Your task to perform on an android device: Open battery settings Image 0: 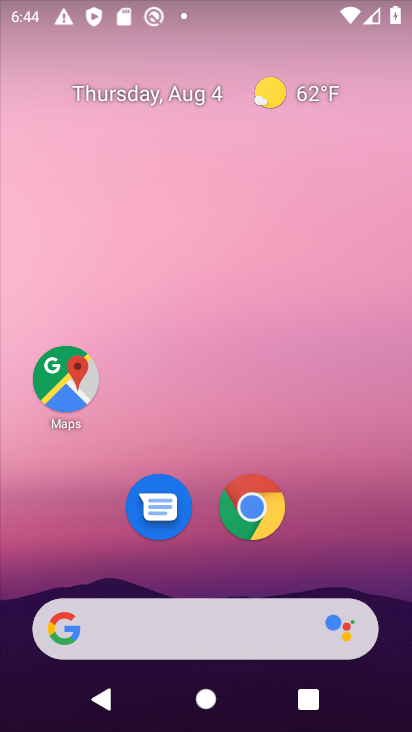
Step 0: drag from (365, 536) to (220, 4)
Your task to perform on an android device: Open battery settings Image 1: 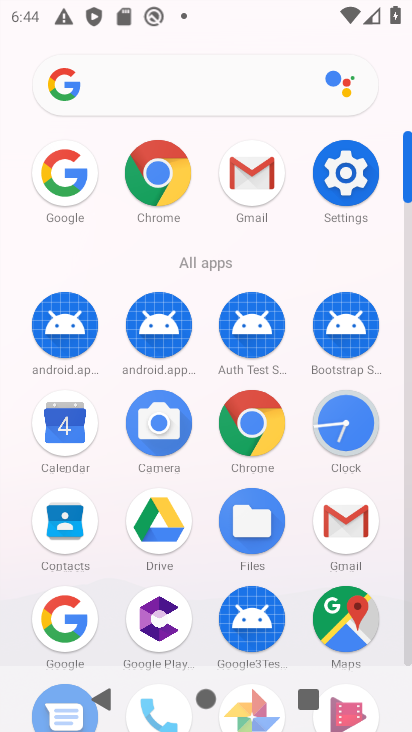
Step 1: click (348, 188)
Your task to perform on an android device: Open battery settings Image 2: 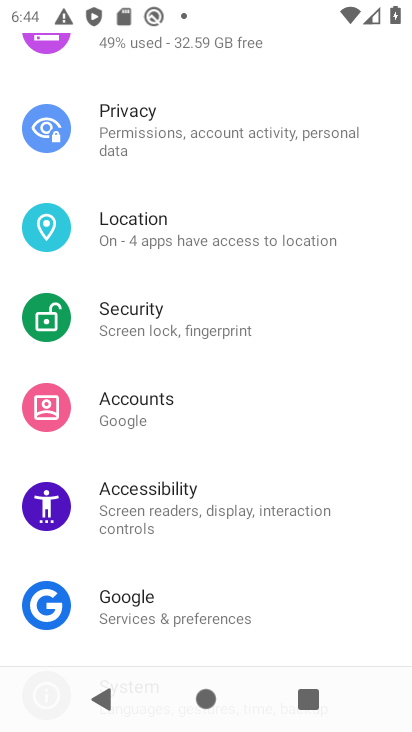
Step 2: drag from (161, 171) to (209, 594)
Your task to perform on an android device: Open battery settings Image 3: 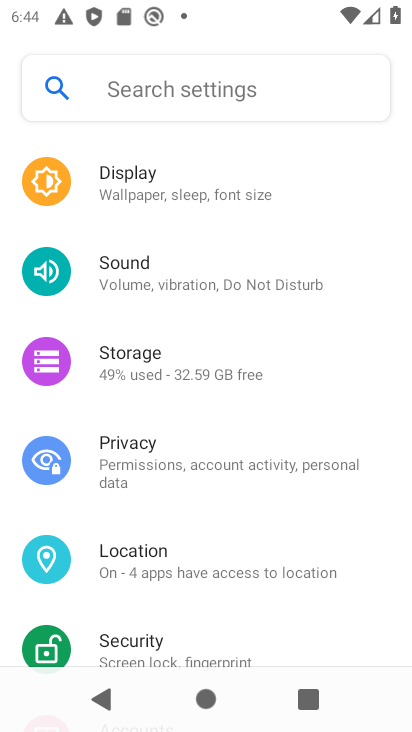
Step 3: drag from (111, 222) to (180, 653)
Your task to perform on an android device: Open battery settings Image 4: 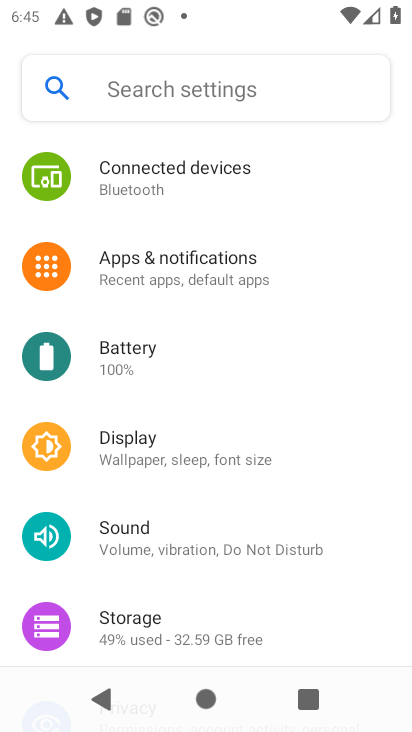
Step 4: click (141, 369)
Your task to perform on an android device: Open battery settings Image 5: 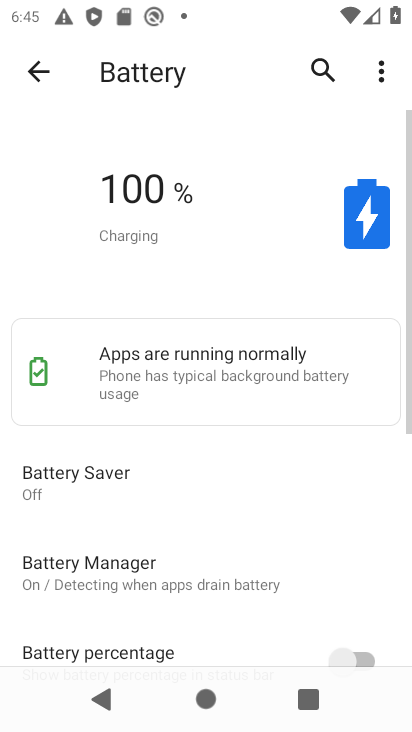
Step 5: task complete